Your task to perform on an android device: set default search engine in the chrome app Image 0: 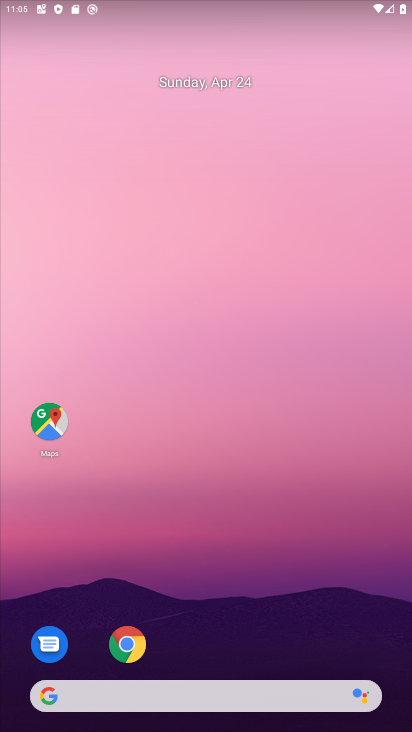
Step 0: click (133, 649)
Your task to perform on an android device: set default search engine in the chrome app Image 1: 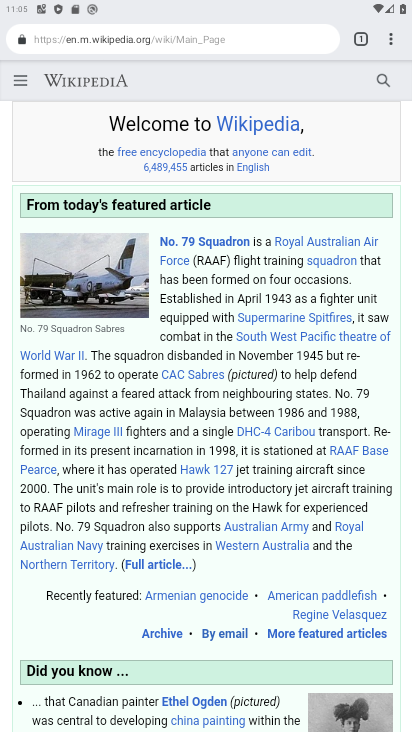
Step 1: drag from (389, 37) to (245, 473)
Your task to perform on an android device: set default search engine in the chrome app Image 2: 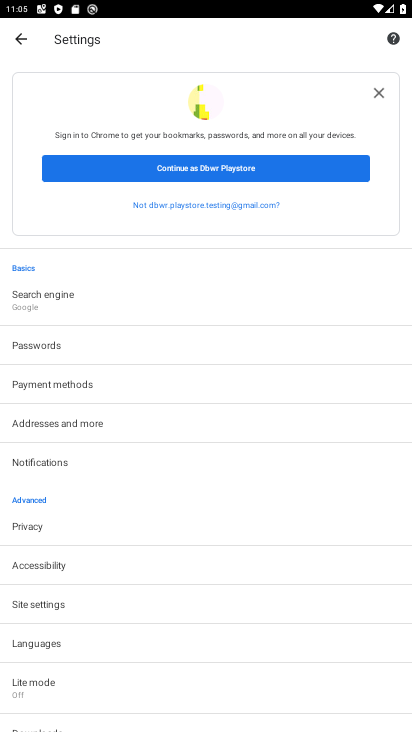
Step 2: click (39, 296)
Your task to perform on an android device: set default search engine in the chrome app Image 3: 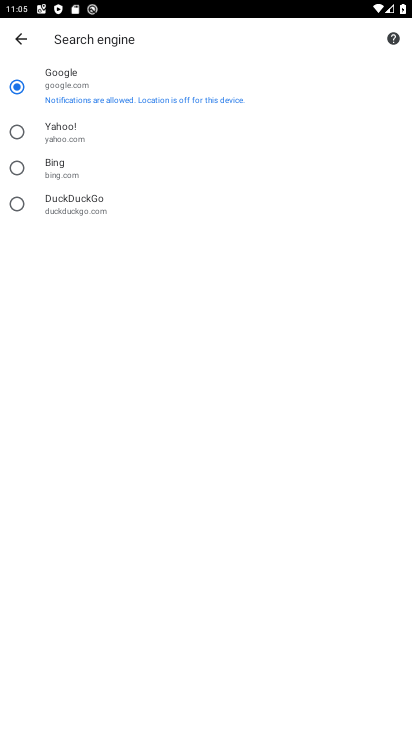
Step 3: click (15, 135)
Your task to perform on an android device: set default search engine in the chrome app Image 4: 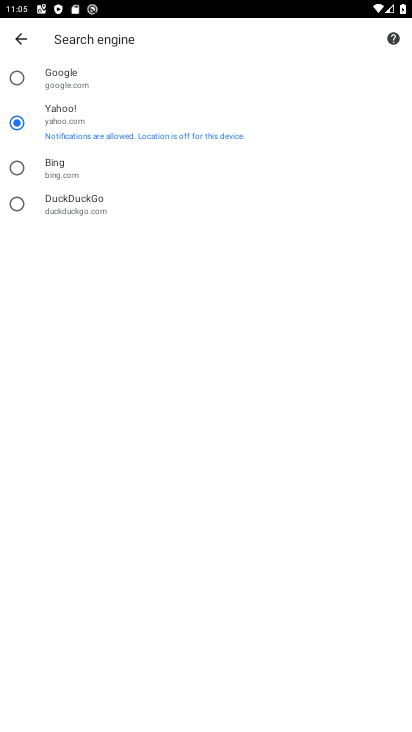
Step 4: task complete